Your task to perform on an android device: Is it going to rain tomorrow? Image 0: 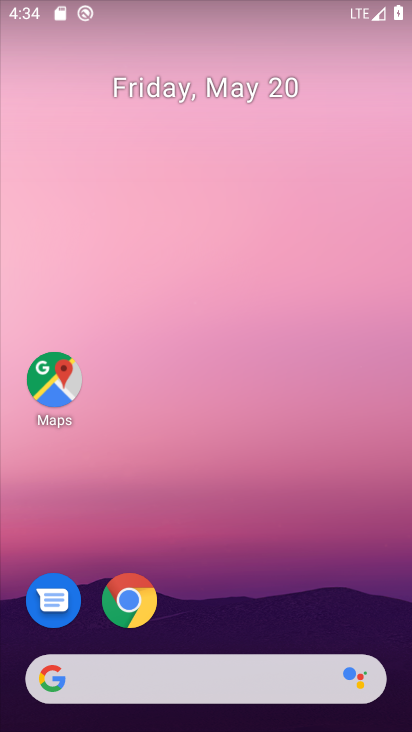
Step 0: drag from (283, 578) to (239, 45)
Your task to perform on an android device: Is it going to rain tomorrow? Image 1: 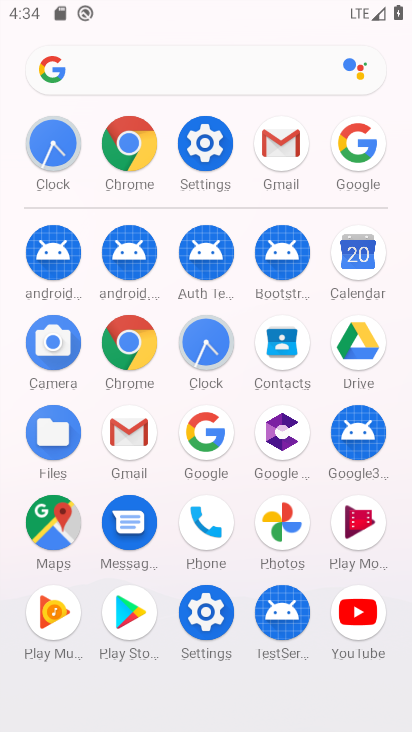
Step 1: click (215, 423)
Your task to perform on an android device: Is it going to rain tomorrow? Image 2: 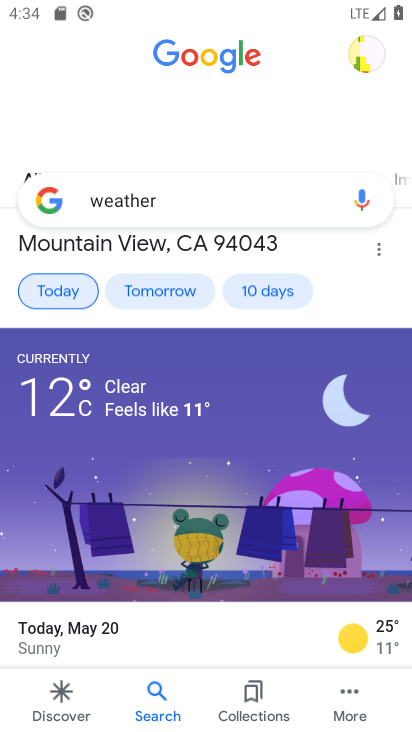
Step 2: click (163, 284)
Your task to perform on an android device: Is it going to rain tomorrow? Image 3: 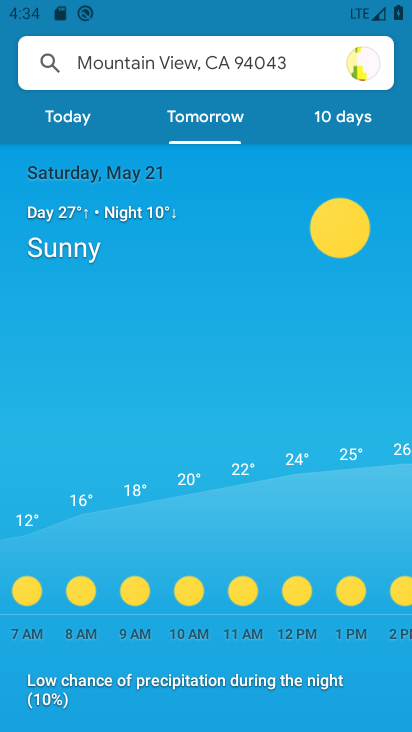
Step 3: task complete